Your task to perform on an android device: find which apps use the phone's location Image 0: 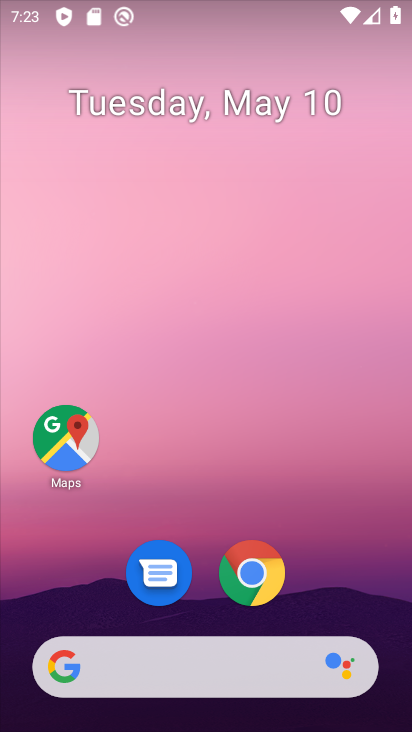
Step 0: drag from (351, 576) to (308, 185)
Your task to perform on an android device: find which apps use the phone's location Image 1: 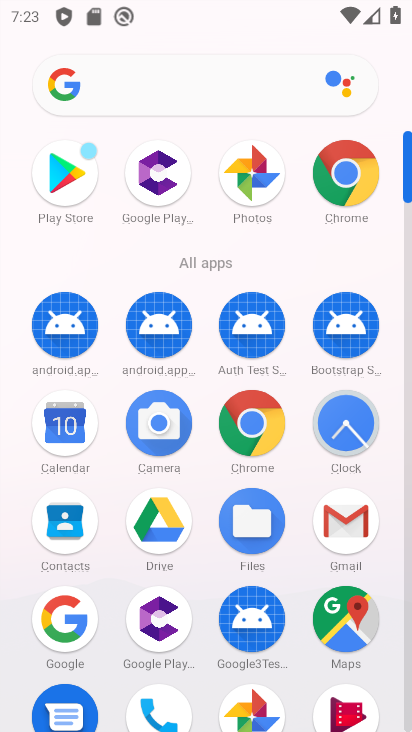
Step 1: drag from (297, 668) to (316, 297)
Your task to perform on an android device: find which apps use the phone's location Image 2: 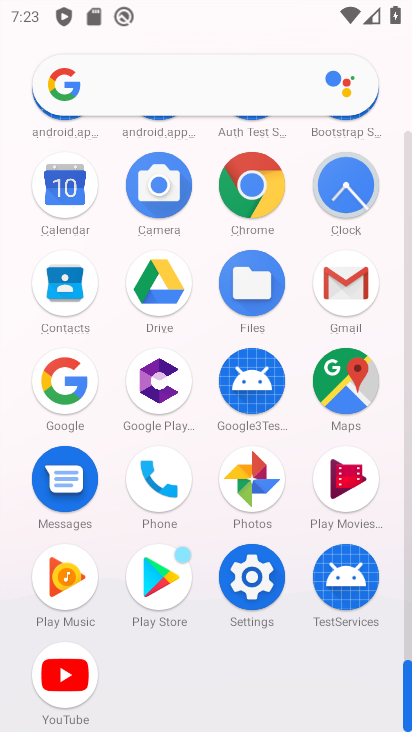
Step 2: click (254, 597)
Your task to perform on an android device: find which apps use the phone's location Image 3: 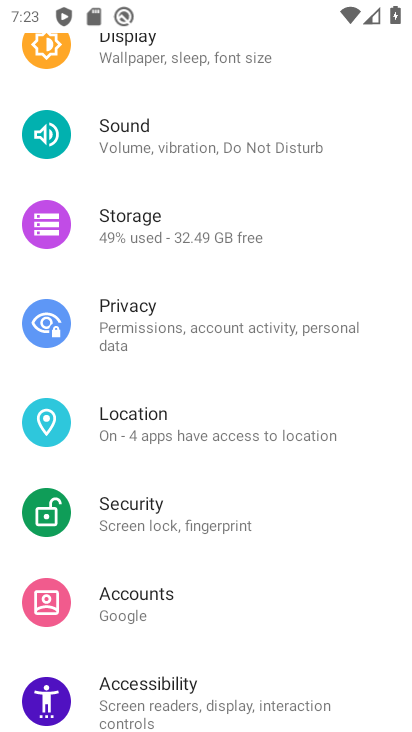
Step 3: click (183, 432)
Your task to perform on an android device: find which apps use the phone's location Image 4: 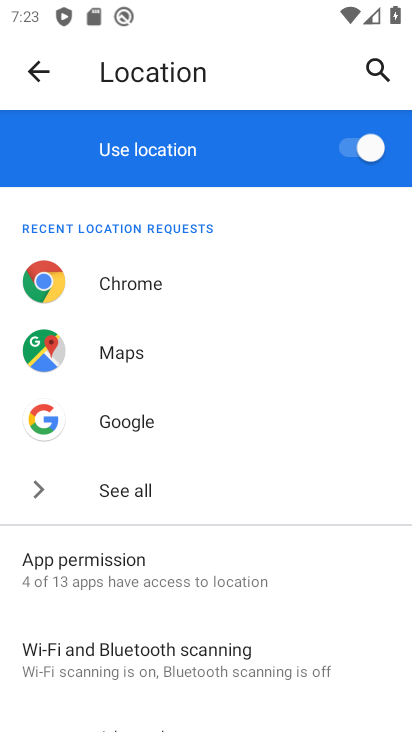
Step 4: task complete